Your task to perform on an android device: Turn off the flashlight Image 0: 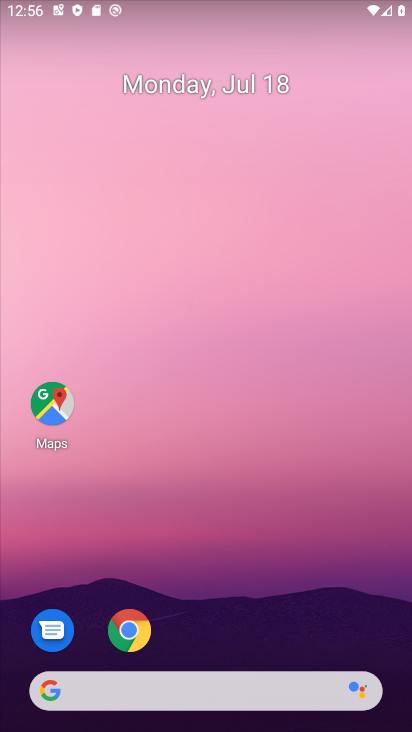
Step 0: drag from (248, 532) to (259, 0)
Your task to perform on an android device: Turn off the flashlight Image 1: 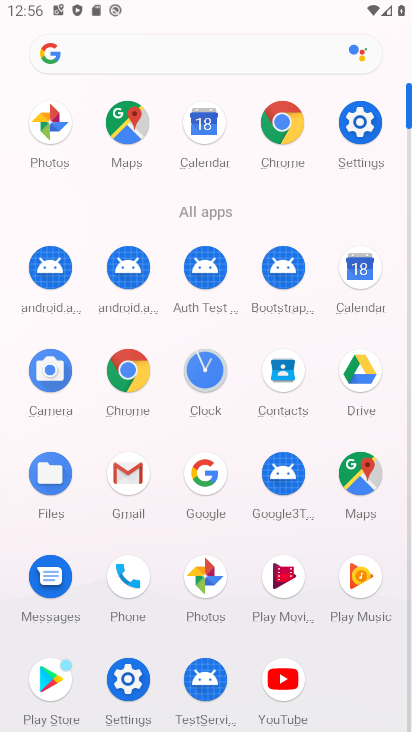
Step 1: click (365, 116)
Your task to perform on an android device: Turn off the flashlight Image 2: 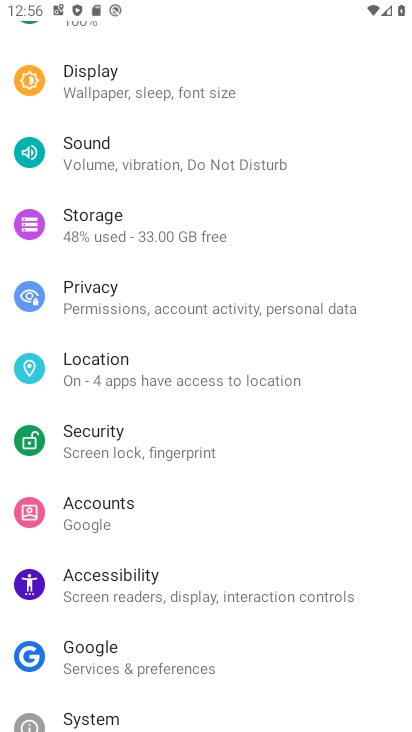
Step 2: drag from (201, 253) to (200, 665)
Your task to perform on an android device: Turn off the flashlight Image 3: 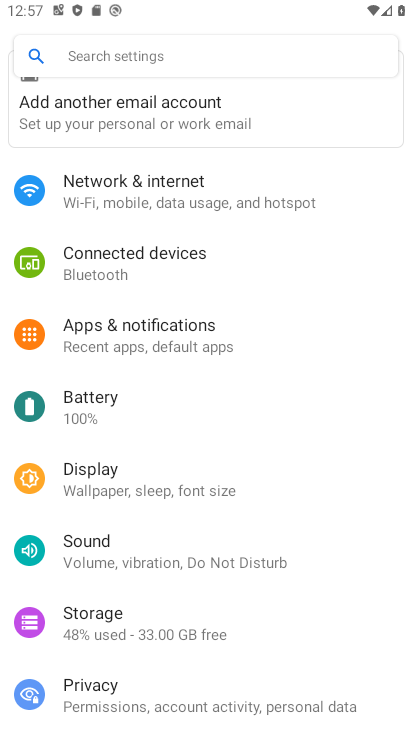
Step 3: drag from (214, 222) to (261, 727)
Your task to perform on an android device: Turn off the flashlight Image 4: 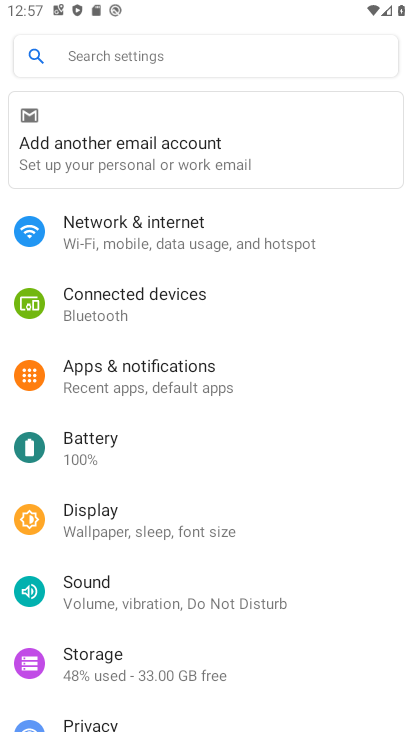
Step 4: click (236, 39)
Your task to perform on an android device: Turn off the flashlight Image 5: 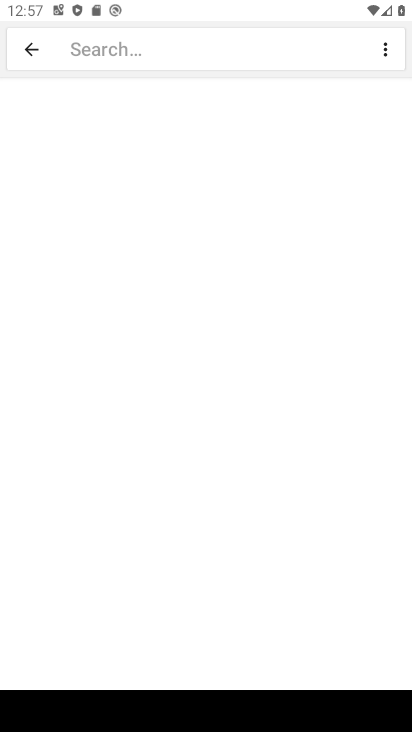
Step 5: type "Flashlight"
Your task to perform on an android device: Turn off the flashlight Image 6: 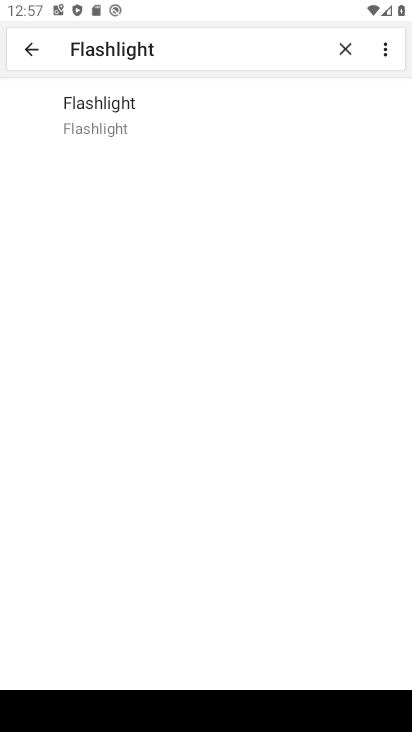
Step 6: click (123, 115)
Your task to perform on an android device: Turn off the flashlight Image 7: 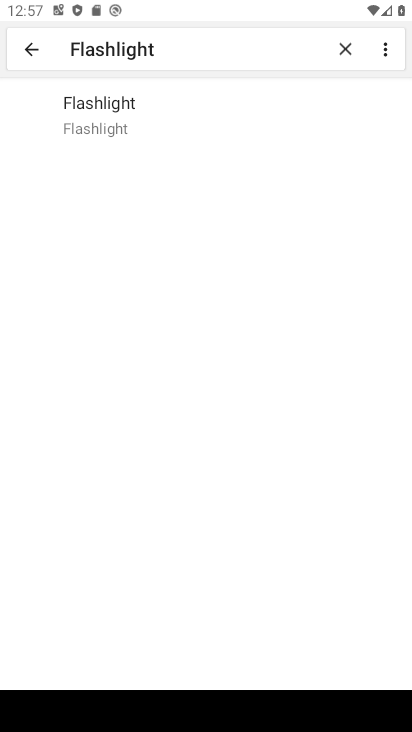
Step 7: click (118, 123)
Your task to perform on an android device: Turn off the flashlight Image 8: 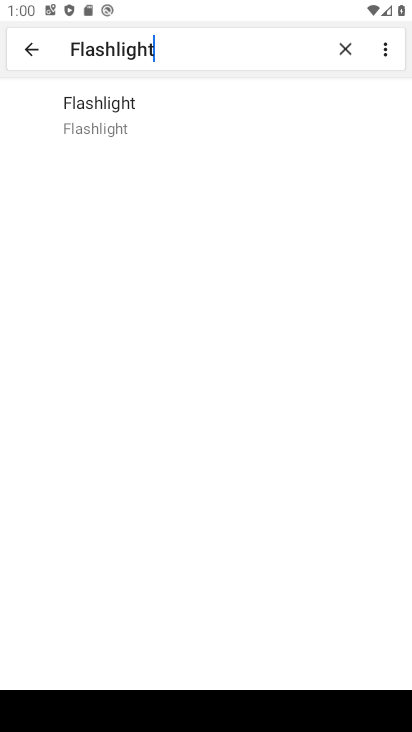
Step 8: task complete